Your task to perform on an android device: Open the Play Movies app and select the watchlist tab. Image 0: 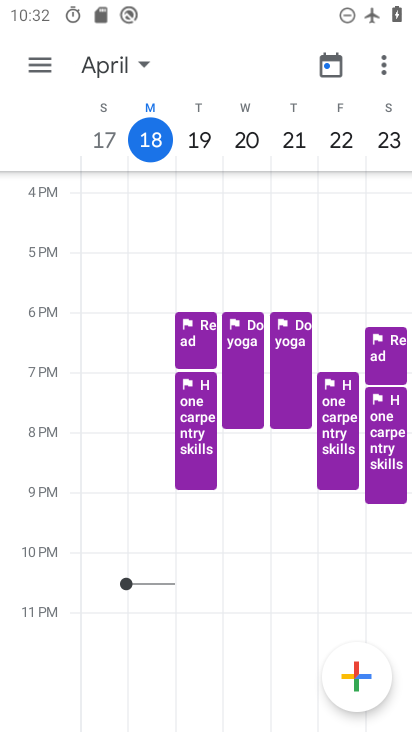
Step 0: press home button
Your task to perform on an android device: Open the Play Movies app and select the watchlist tab. Image 1: 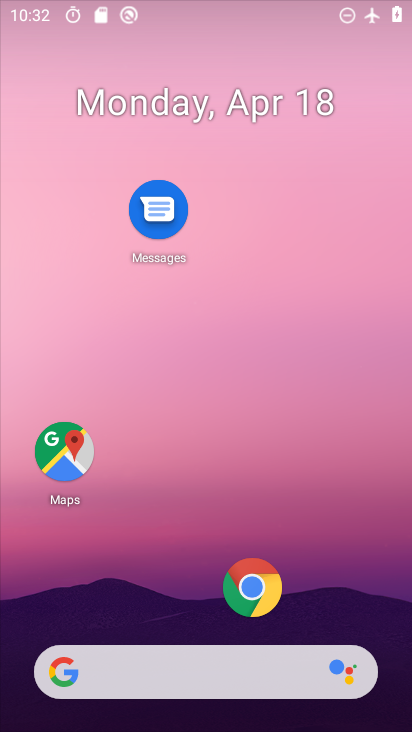
Step 1: drag from (194, 591) to (344, 0)
Your task to perform on an android device: Open the Play Movies app and select the watchlist tab. Image 2: 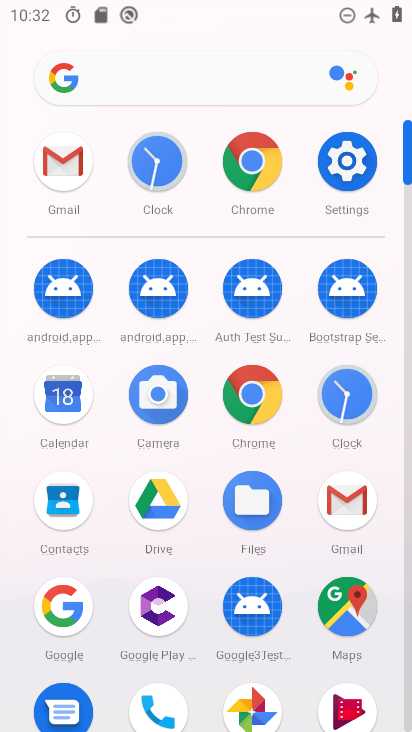
Step 2: drag from (310, 463) to (353, 188)
Your task to perform on an android device: Open the Play Movies app and select the watchlist tab. Image 3: 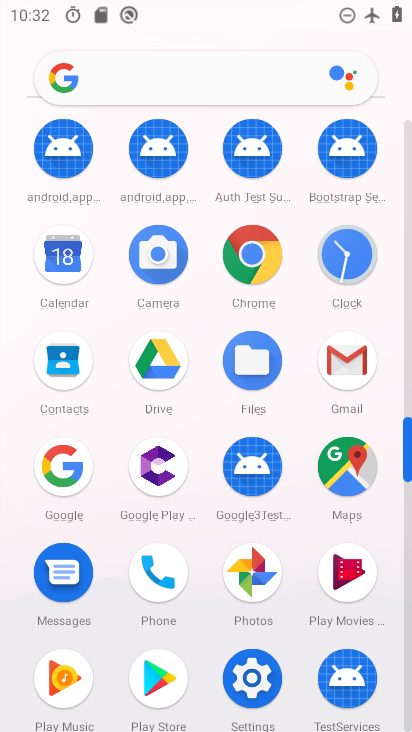
Step 3: click (348, 578)
Your task to perform on an android device: Open the Play Movies app and select the watchlist tab. Image 4: 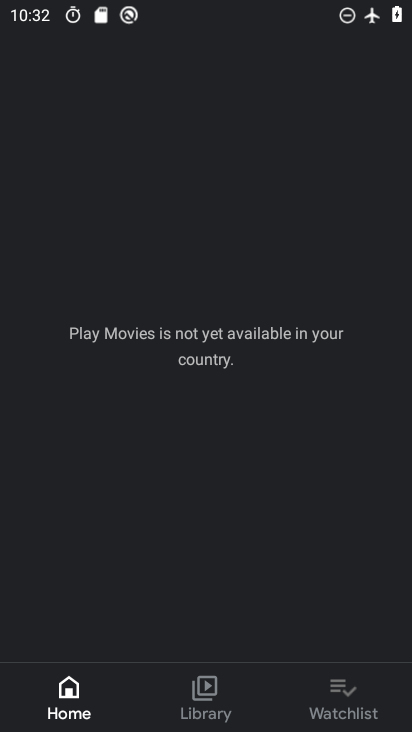
Step 4: click (330, 693)
Your task to perform on an android device: Open the Play Movies app and select the watchlist tab. Image 5: 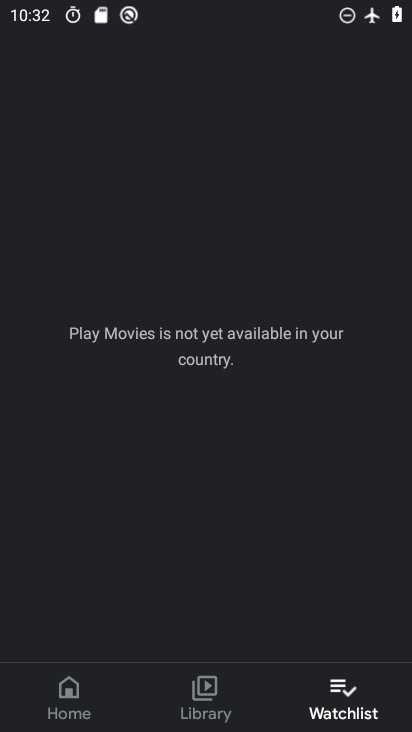
Step 5: task complete